Your task to perform on an android device: add a label to a message in the gmail app Image 0: 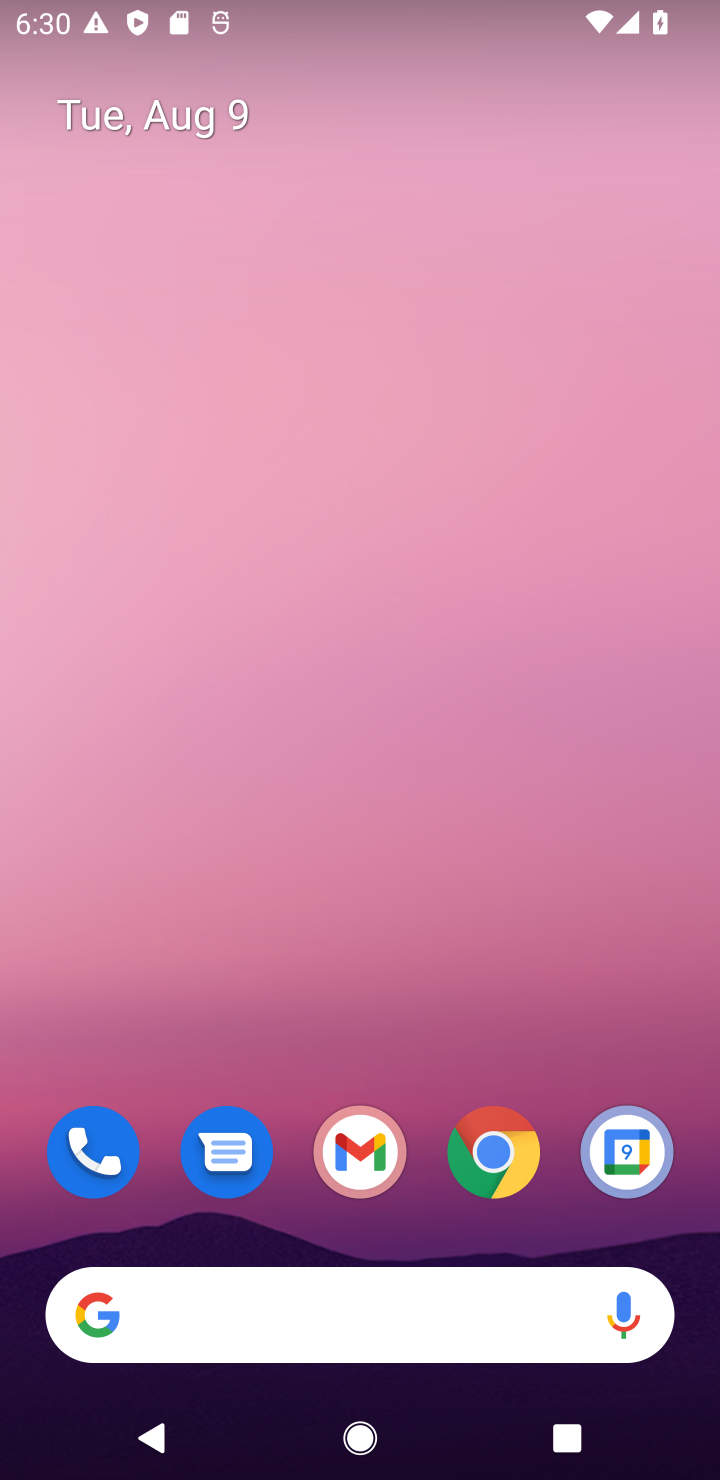
Step 0: click (354, 1120)
Your task to perform on an android device: add a label to a message in the gmail app Image 1: 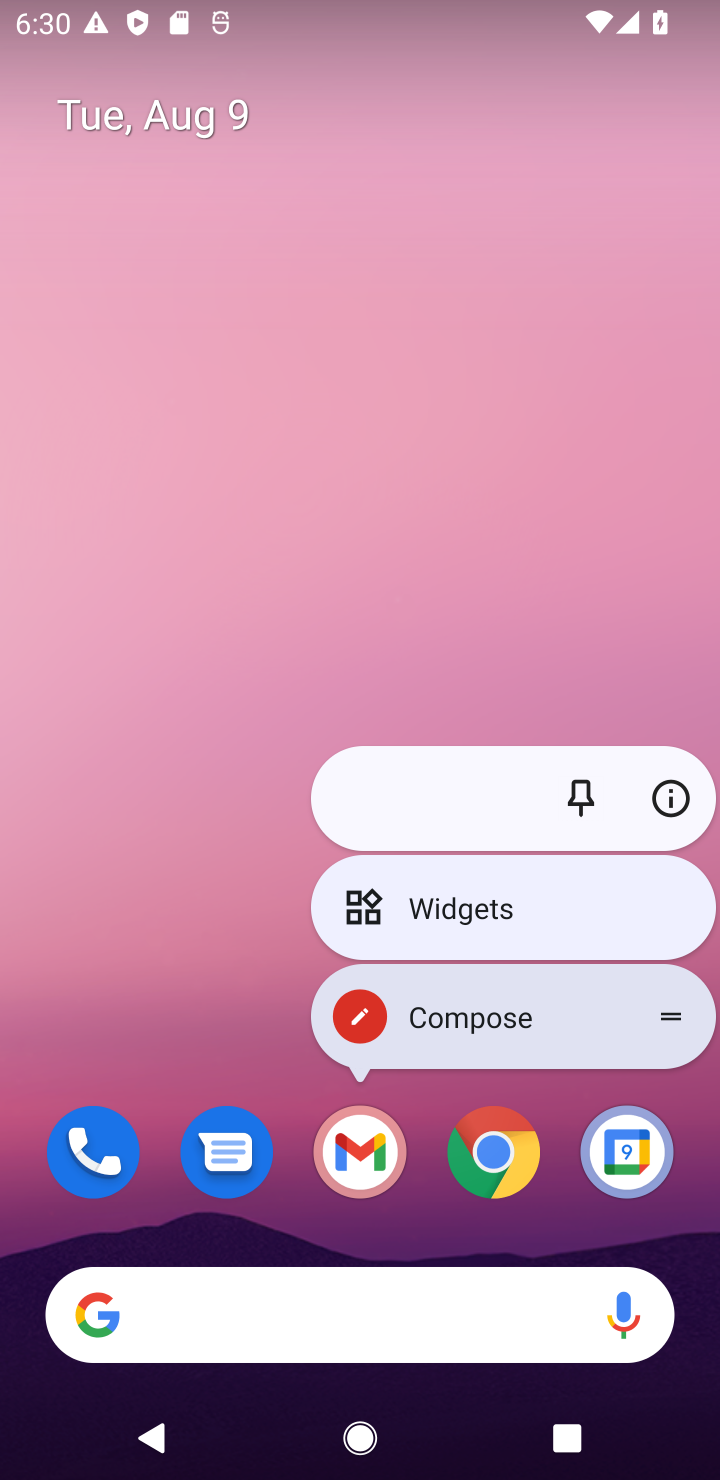
Step 1: click (348, 1131)
Your task to perform on an android device: add a label to a message in the gmail app Image 2: 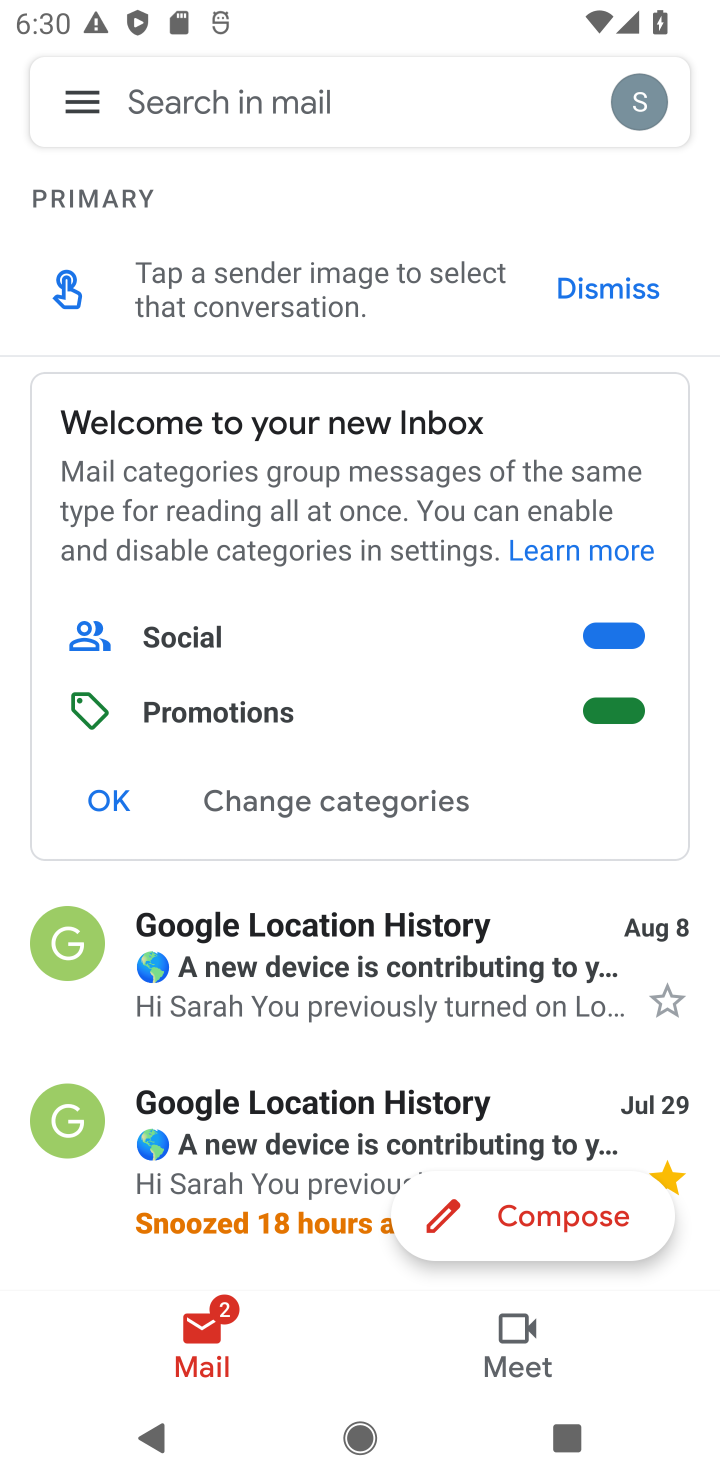
Step 2: click (305, 986)
Your task to perform on an android device: add a label to a message in the gmail app Image 3: 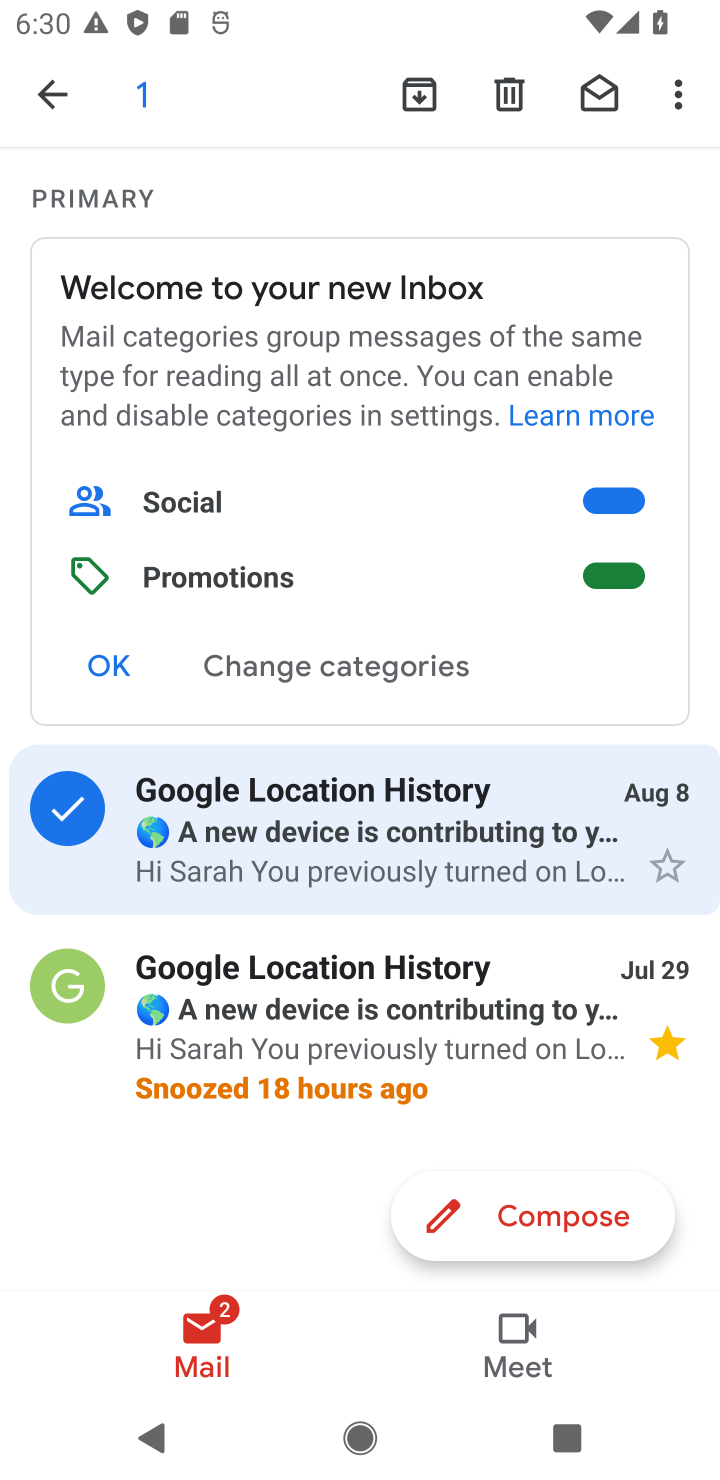
Step 3: click (677, 82)
Your task to perform on an android device: add a label to a message in the gmail app Image 4: 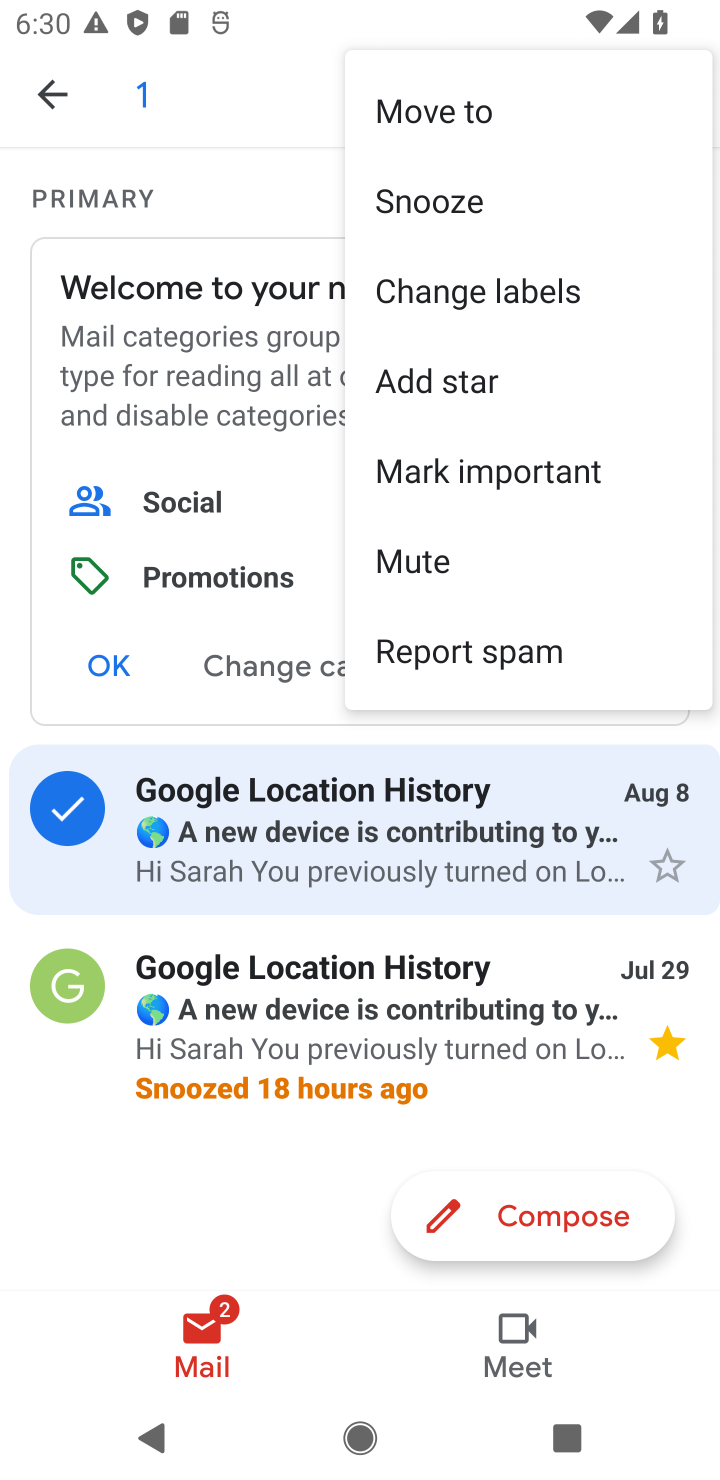
Step 4: click (451, 299)
Your task to perform on an android device: add a label to a message in the gmail app Image 5: 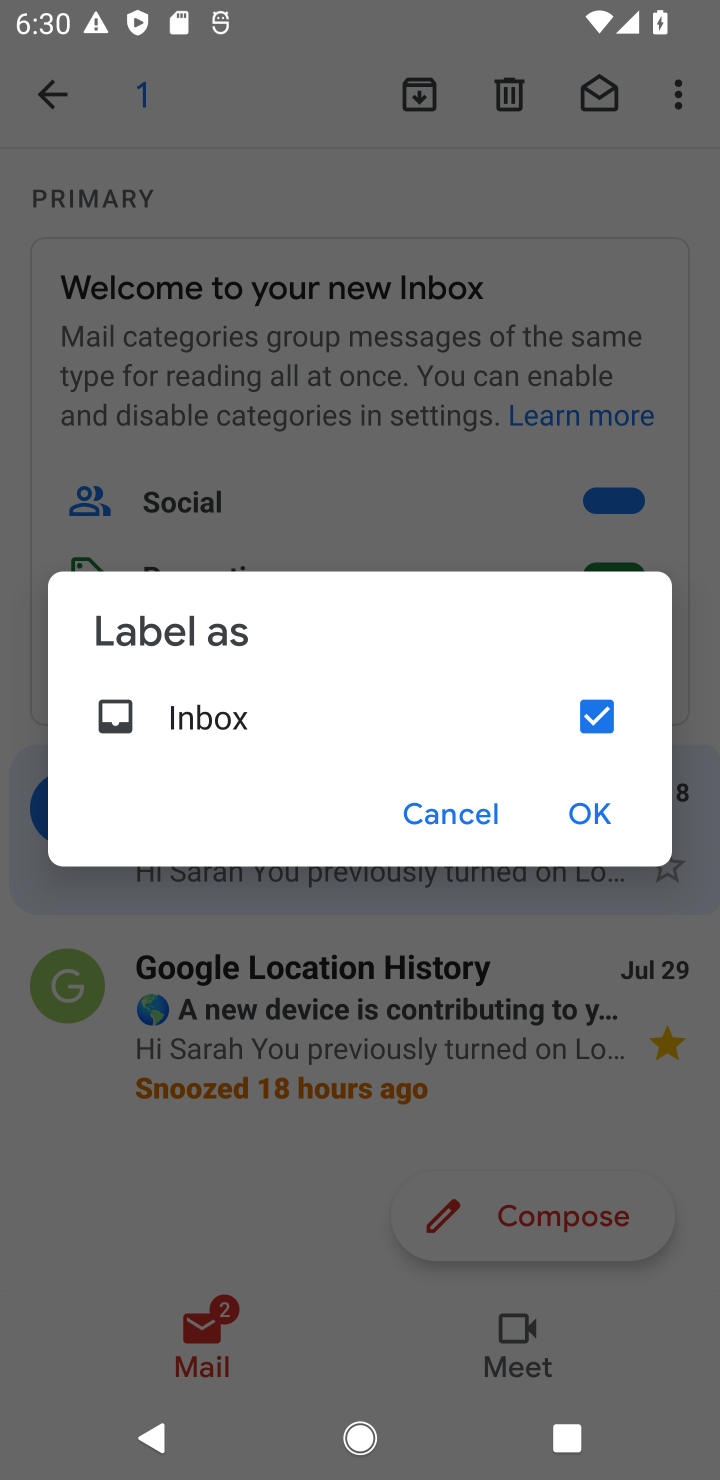
Step 5: click (592, 822)
Your task to perform on an android device: add a label to a message in the gmail app Image 6: 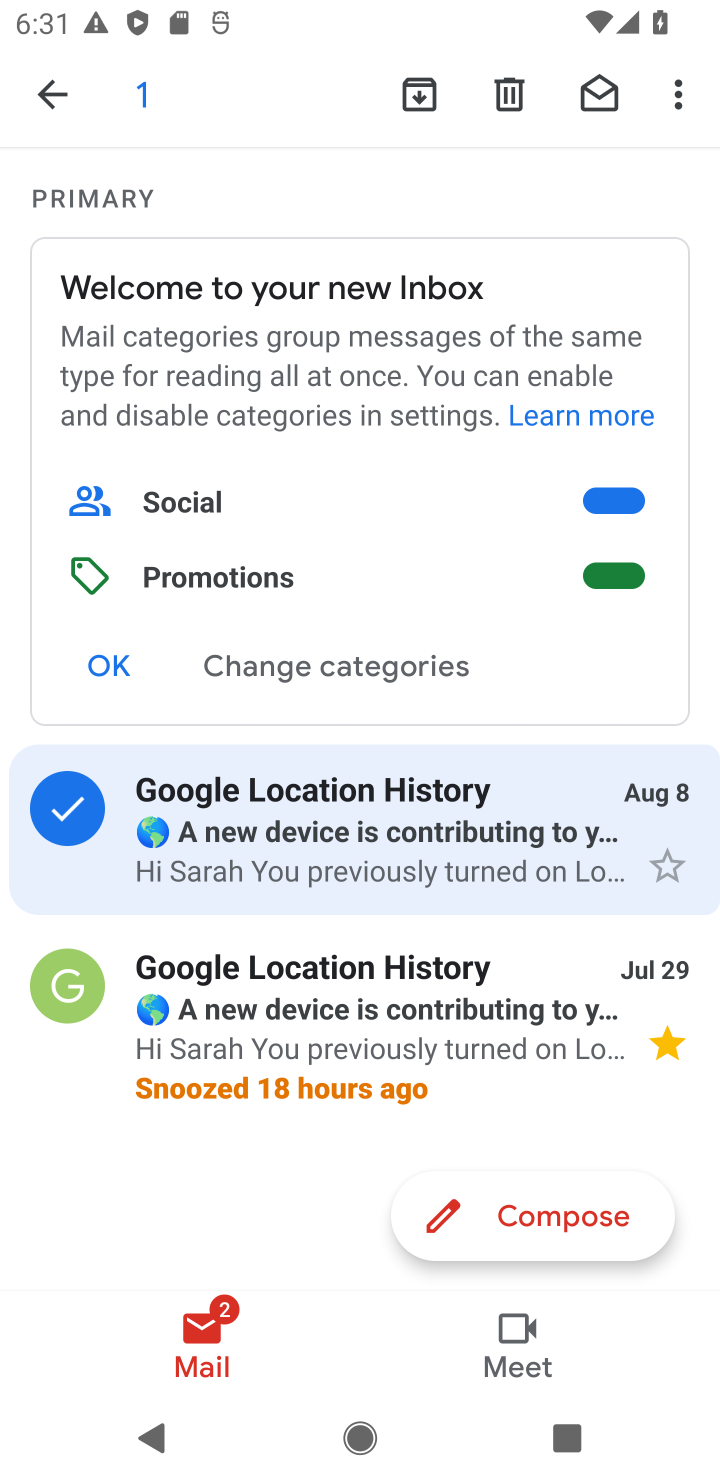
Step 6: task complete